Your task to perform on an android device: Set the phone to "Do not disturb". Image 0: 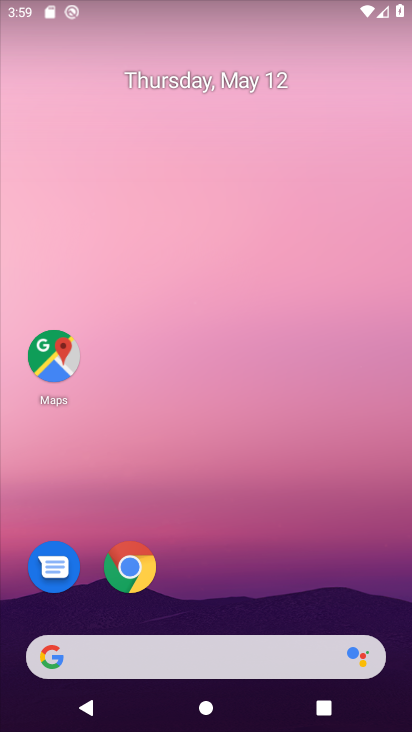
Step 0: drag from (214, 639) to (294, 147)
Your task to perform on an android device: Set the phone to "Do not disturb". Image 1: 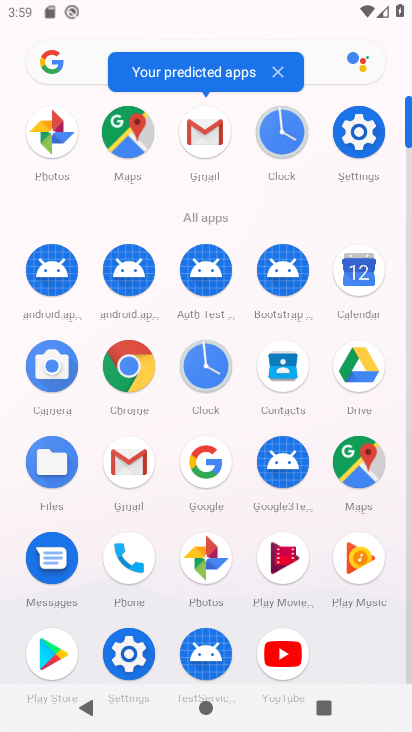
Step 1: drag from (238, 612) to (280, 376)
Your task to perform on an android device: Set the phone to "Do not disturb". Image 2: 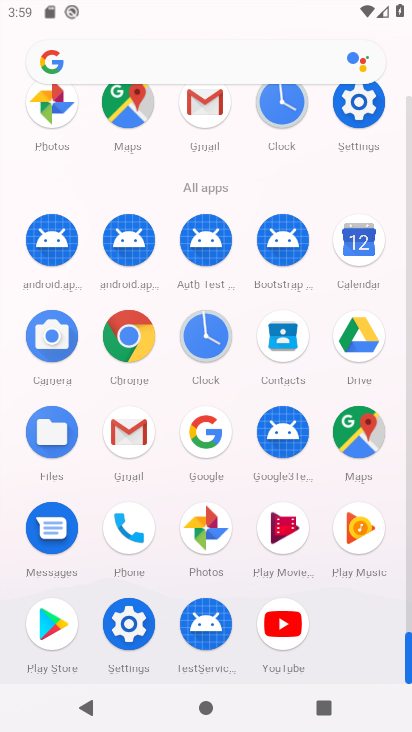
Step 2: click (134, 637)
Your task to perform on an android device: Set the phone to "Do not disturb". Image 3: 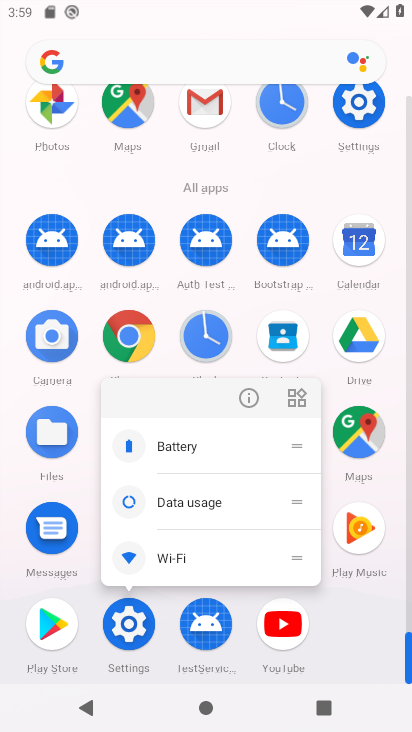
Step 3: click (133, 638)
Your task to perform on an android device: Set the phone to "Do not disturb". Image 4: 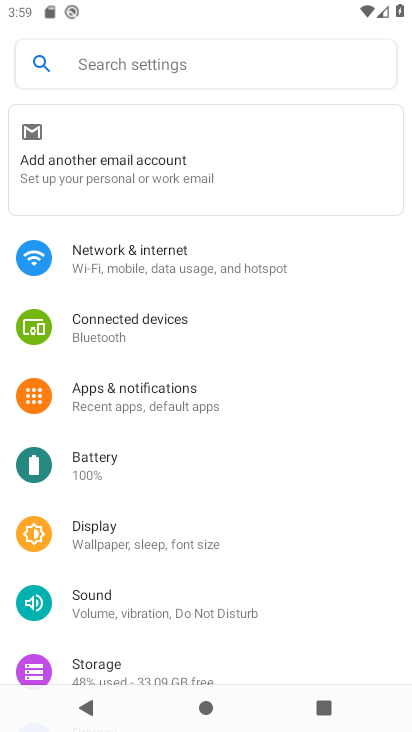
Step 4: click (185, 402)
Your task to perform on an android device: Set the phone to "Do not disturb". Image 5: 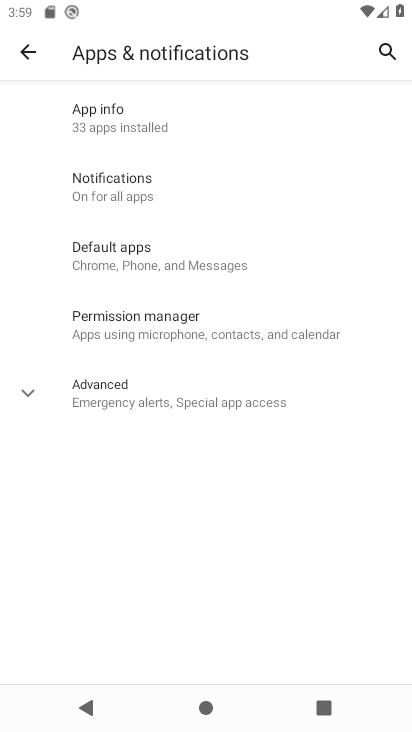
Step 5: click (194, 201)
Your task to perform on an android device: Set the phone to "Do not disturb". Image 6: 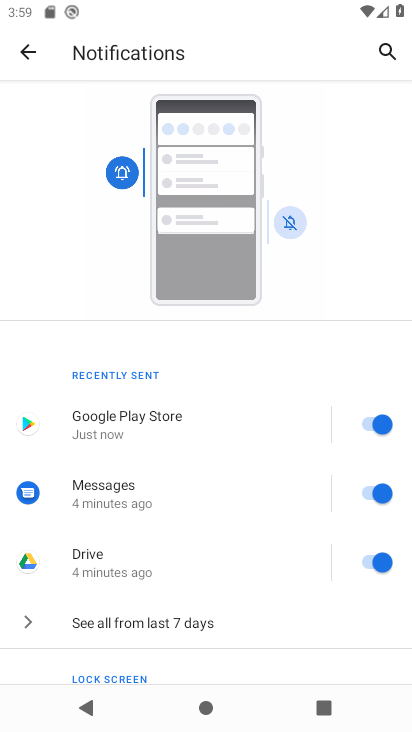
Step 6: drag from (209, 530) to (300, 140)
Your task to perform on an android device: Set the phone to "Do not disturb". Image 7: 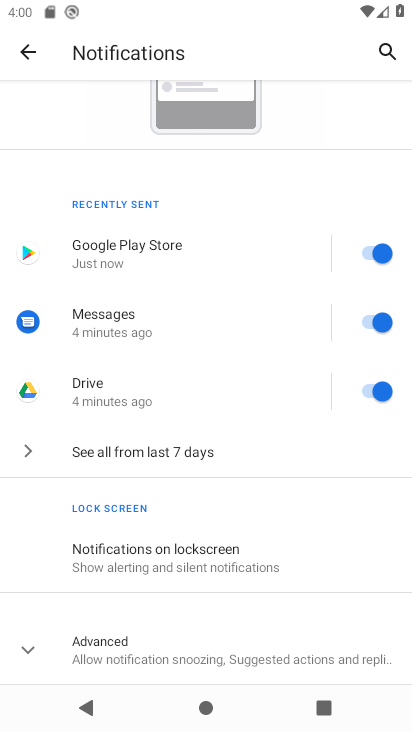
Step 7: click (235, 649)
Your task to perform on an android device: Set the phone to "Do not disturb". Image 8: 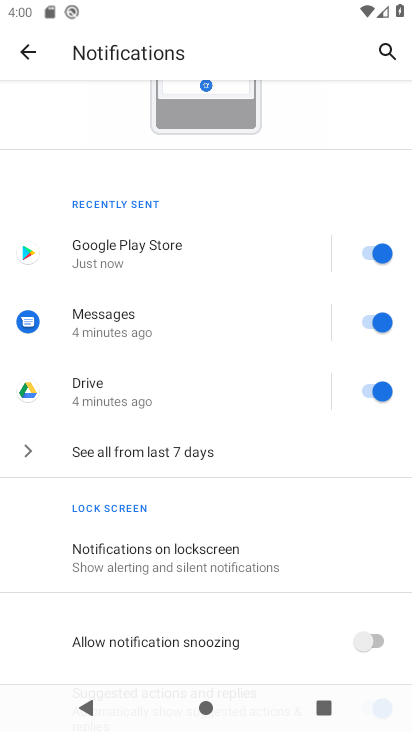
Step 8: drag from (197, 683) to (301, 256)
Your task to perform on an android device: Set the phone to "Do not disturb". Image 9: 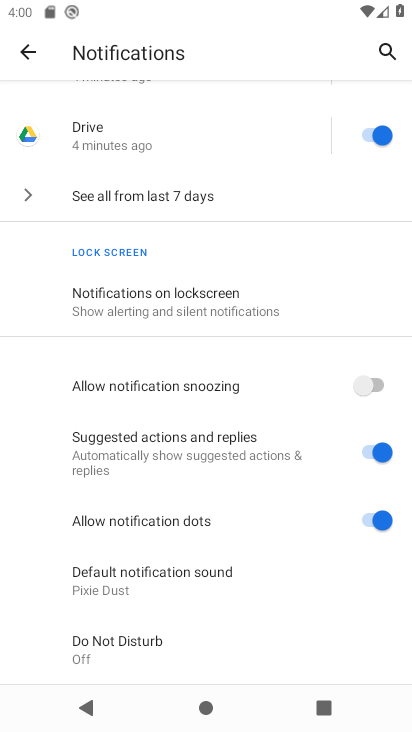
Step 9: click (223, 644)
Your task to perform on an android device: Set the phone to "Do not disturb". Image 10: 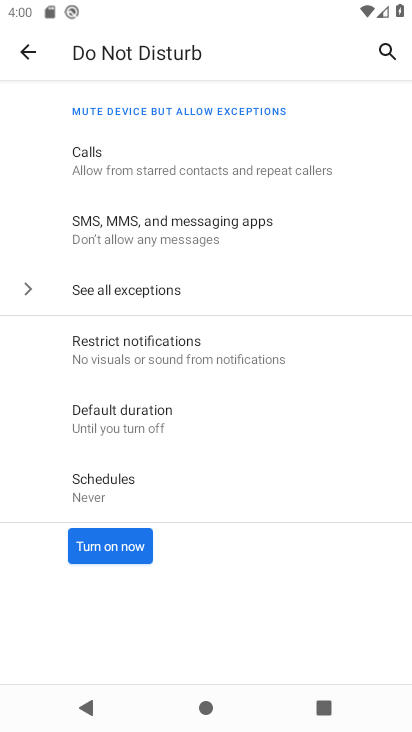
Step 10: click (133, 550)
Your task to perform on an android device: Set the phone to "Do not disturb". Image 11: 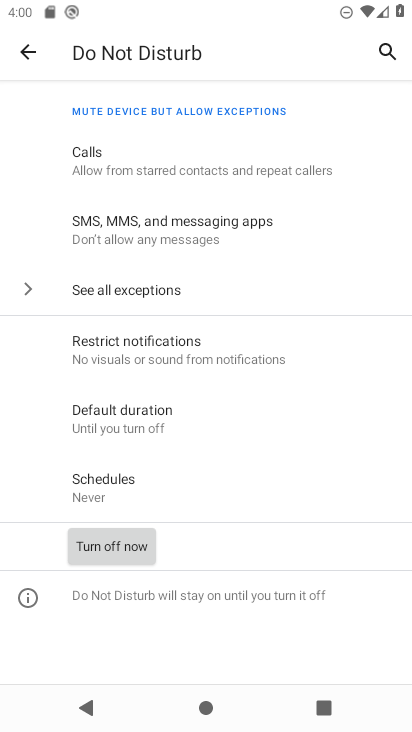
Step 11: task complete